Your task to perform on an android device: Search for hotels in Zurich Image 0: 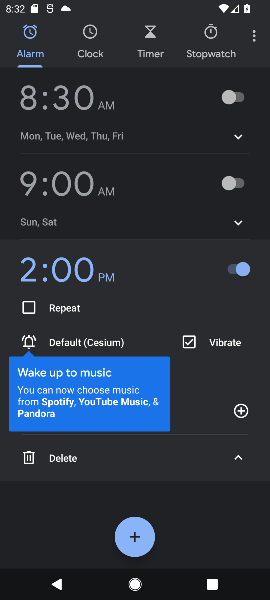
Step 0: press home button
Your task to perform on an android device: Search for hotels in Zurich Image 1: 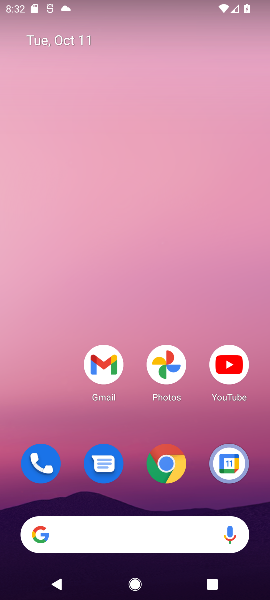
Step 1: drag from (78, 479) to (83, 197)
Your task to perform on an android device: Search for hotels in Zurich Image 2: 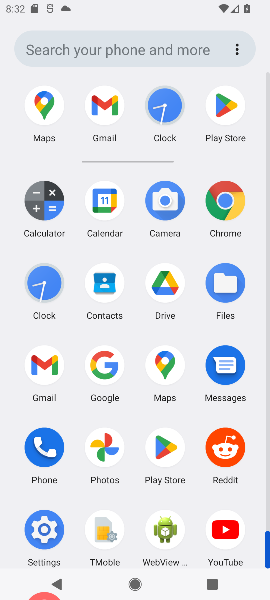
Step 2: click (98, 362)
Your task to perform on an android device: Search for hotels in Zurich Image 3: 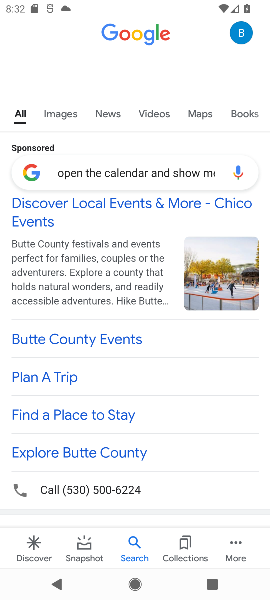
Step 3: click (122, 169)
Your task to perform on an android device: Search for hotels in Zurich Image 4: 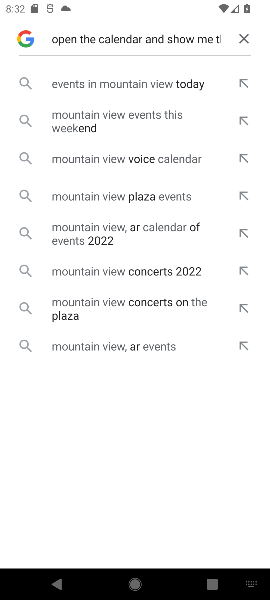
Step 4: click (239, 42)
Your task to perform on an android device: Search for hotels in Zurich Image 5: 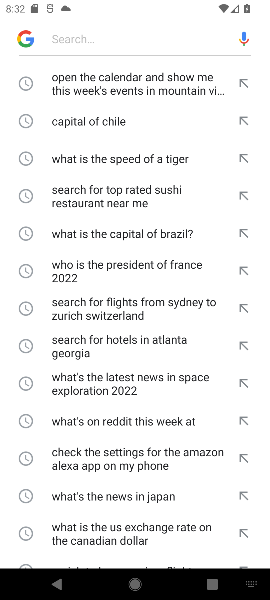
Step 5: click (110, 31)
Your task to perform on an android device: Search for hotels in Zurich Image 6: 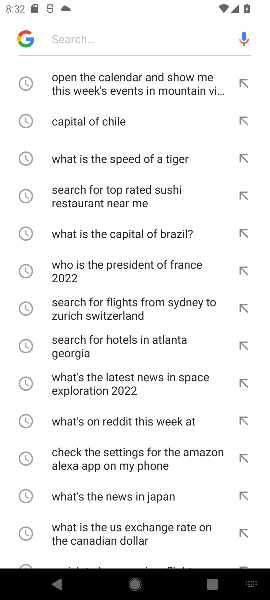
Step 6: type "Search for hotels in Zurich "
Your task to perform on an android device: Search for hotels in Zurich Image 7: 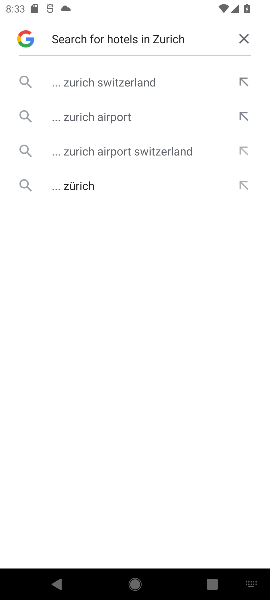
Step 7: click (148, 76)
Your task to perform on an android device: Search for hotels in Zurich Image 8: 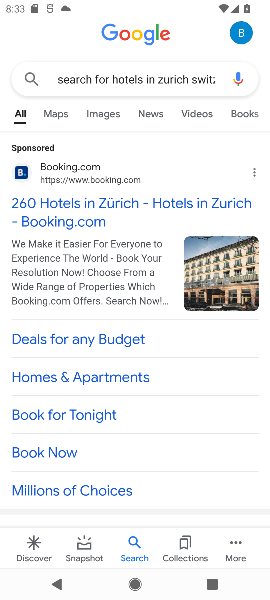
Step 8: click (127, 197)
Your task to perform on an android device: Search for hotels in Zurich Image 9: 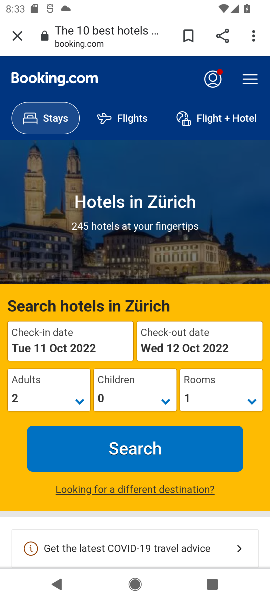
Step 9: click (139, 455)
Your task to perform on an android device: Search for hotels in Zurich Image 10: 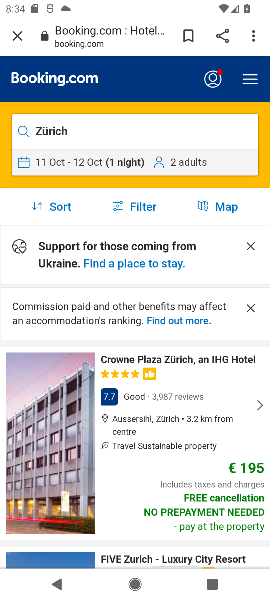
Step 10: task complete